Your task to perform on an android device: Show me productivity apps on the Play Store Image 0: 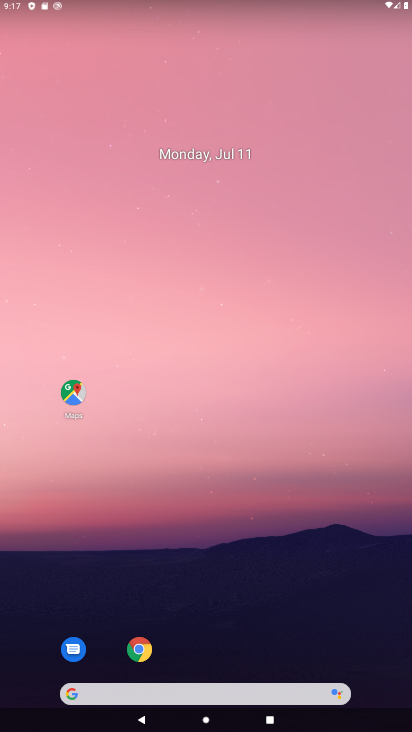
Step 0: drag from (197, 675) to (261, 52)
Your task to perform on an android device: Show me productivity apps on the Play Store Image 1: 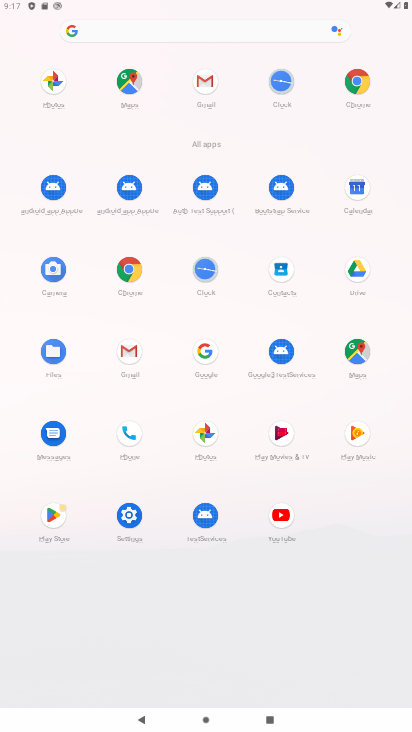
Step 1: click (55, 519)
Your task to perform on an android device: Show me productivity apps on the Play Store Image 2: 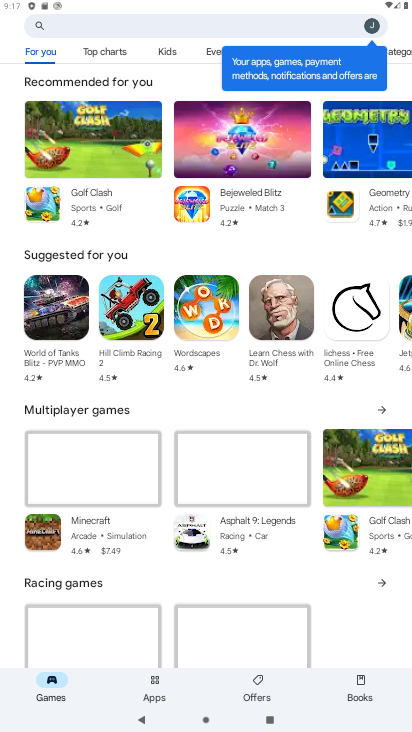
Step 2: click (151, 695)
Your task to perform on an android device: Show me productivity apps on the Play Store Image 3: 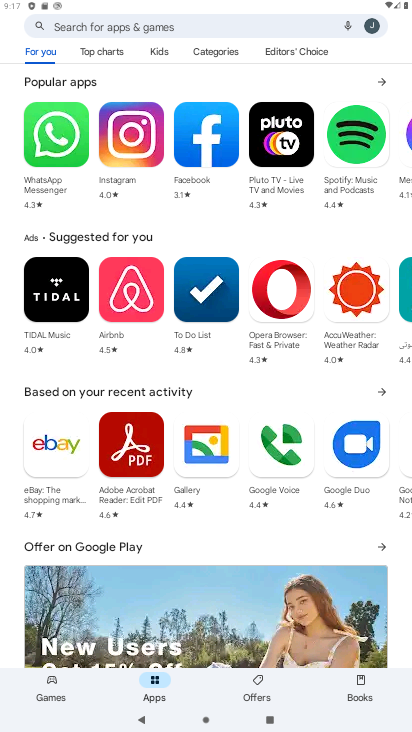
Step 3: click (215, 52)
Your task to perform on an android device: Show me productivity apps on the Play Store Image 4: 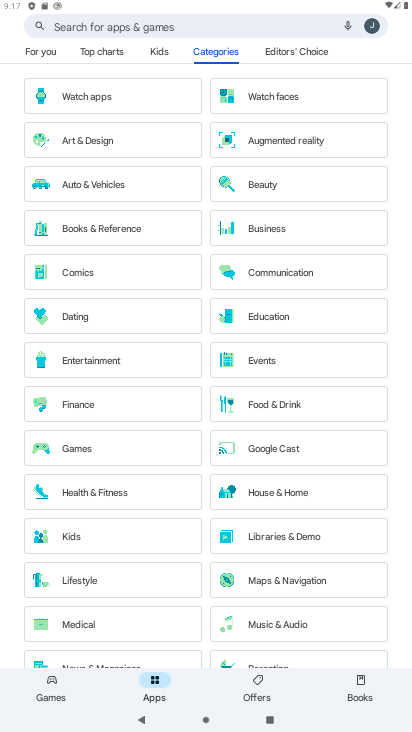
Step 4: drag from (117, 629) to (167, 381)
Your task to perform on an android device: Show me productivity apps on the Play Store Image 5: 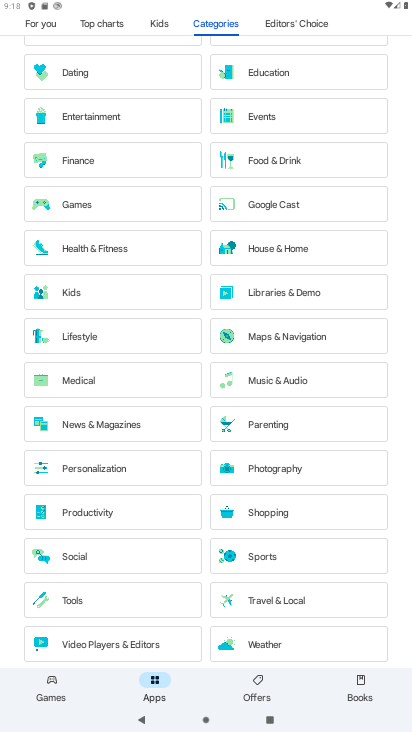
Step 5: click (128, 518)
Your task to perform on an android device: Show me productivity apps on the Play Store Image 6: 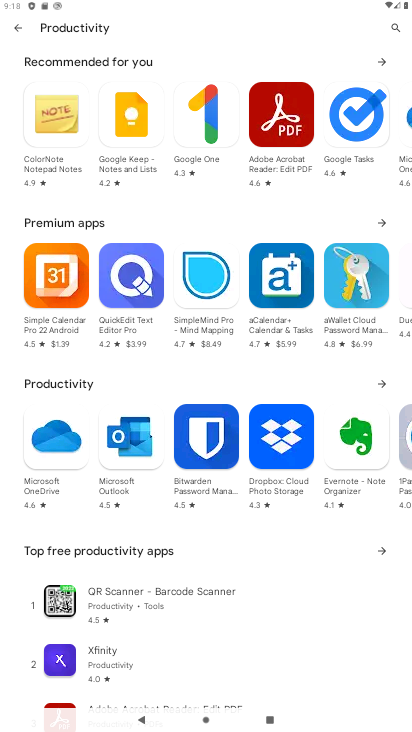
Step 6: task complete